Your task to perform on an android device: Go to settings Image 0: 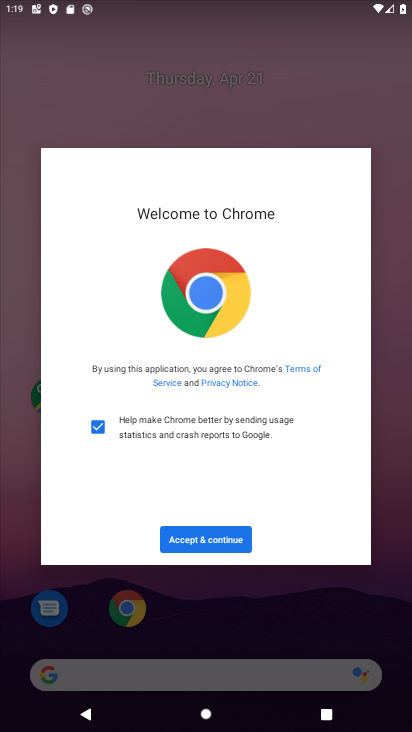
Step 0: press home button
Your task to perform on an android device: Go to settings Image 1: 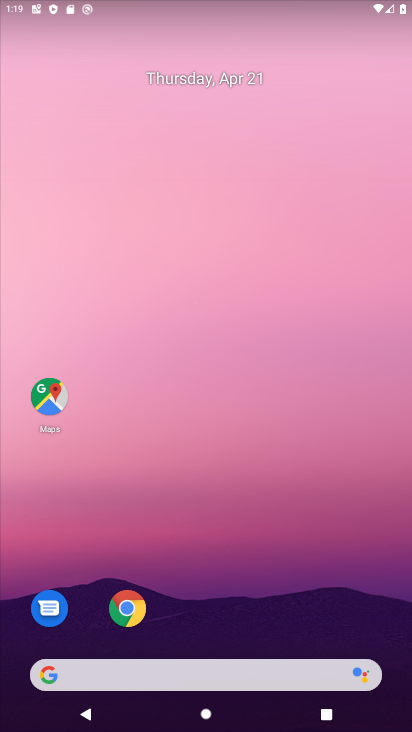
Step 1: drag from (296, 564) to (340, 20)
Your task to perform on an android device: Go to settings Image 2: 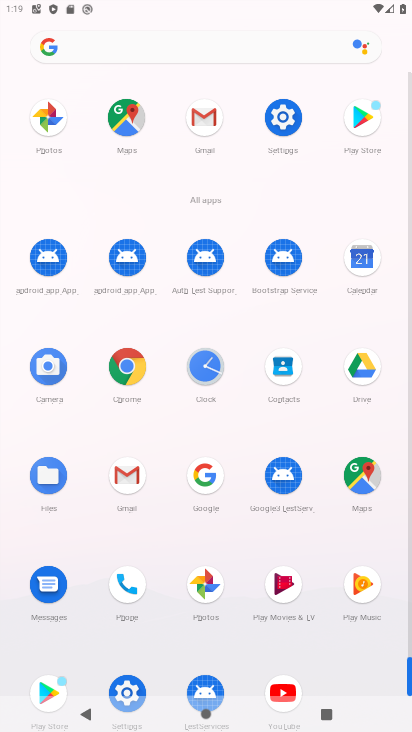
Step 2: click (304, 113)
Your task to perform on an android device: Go to settings Image 3: 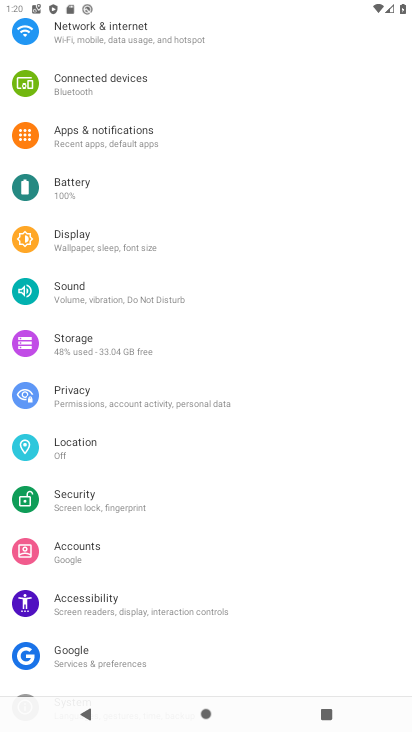
Step 3: task complete